Your task to perform on an android device: Search for pizza restaurants on Maps Image 0: 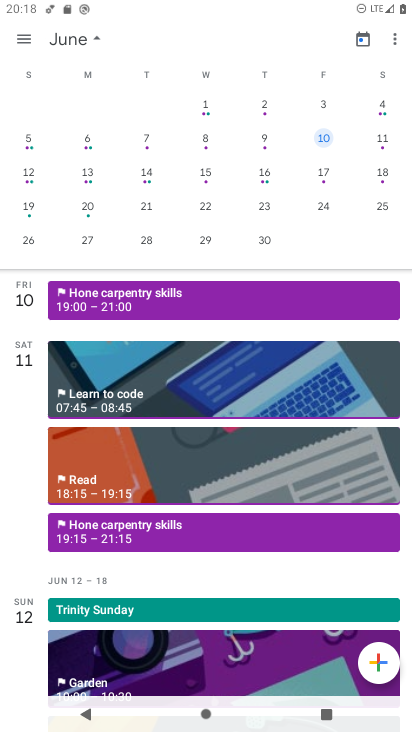
Step 0: press home button
Your task to perform on an android device: Search for pizza restaurants on Maps Image 1: 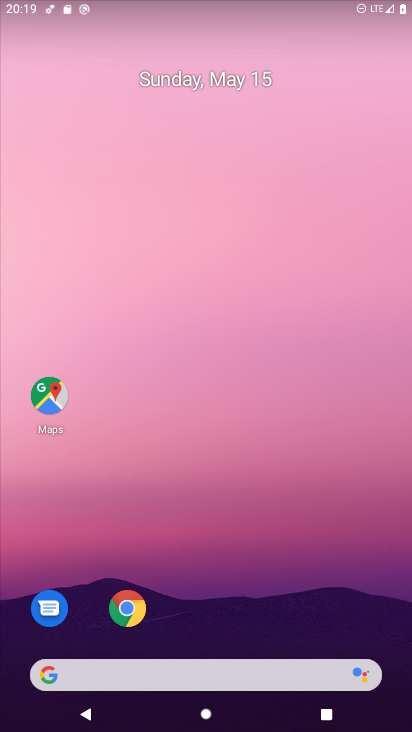
Step 1: click (53, 400)
Your task to perform on an android device: Search for pizza restaurants on Maps Image 2: 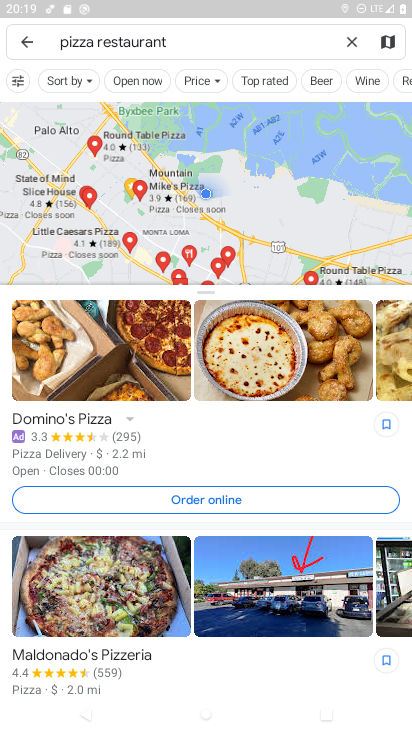
Step 2: task complete